Your task to perform on an android device: Open wifi settings Image 0: 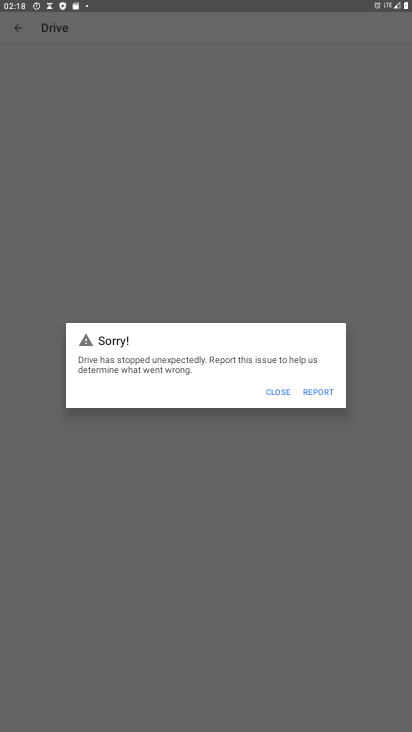
Step 0: drag from (216, 706) to (255, 80)
Your task to perform on an android device: Open wifi settings Image 1: 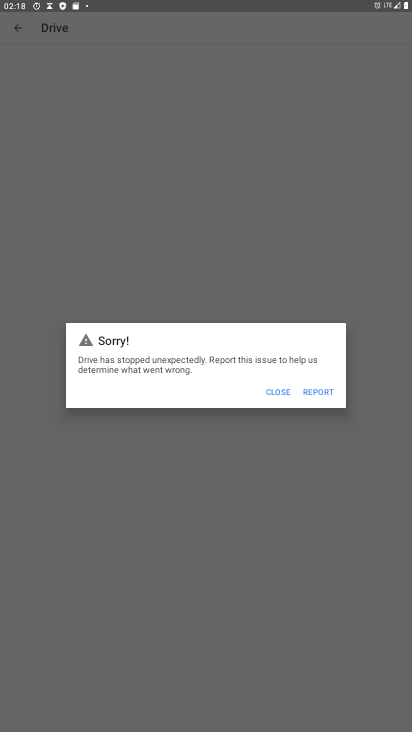
Step 1: press home button
Your task to perform on an android device: Open wifi settings Image 2: 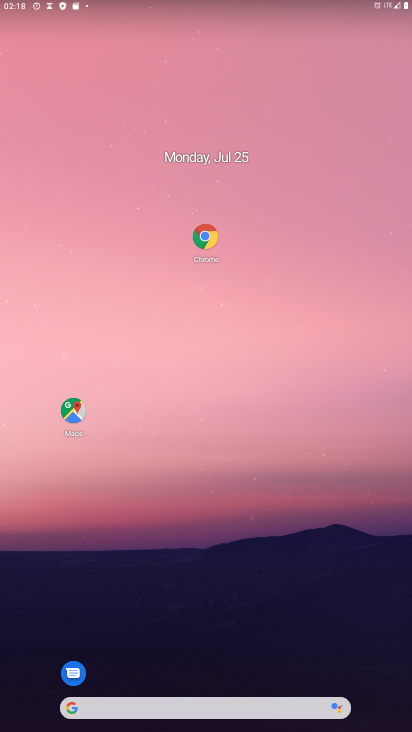
Step 2: drag from (219, 508) to (222, 45)
Your task to perform on an android device: Open wifi settings Image 3: 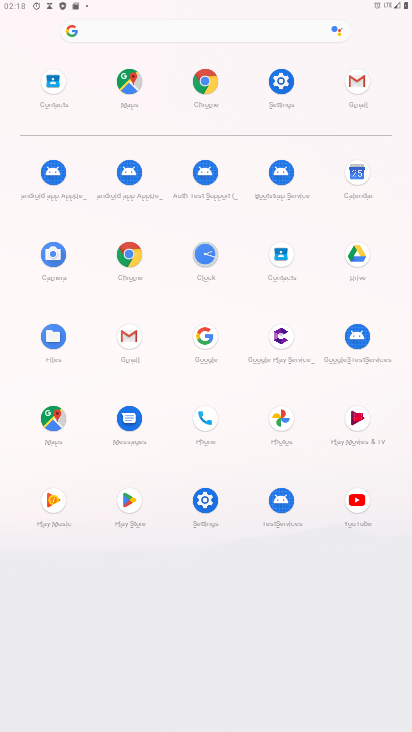
Step 3: click (282, 86)
Your task to perform on an android device: Open wifi settings Image 4: 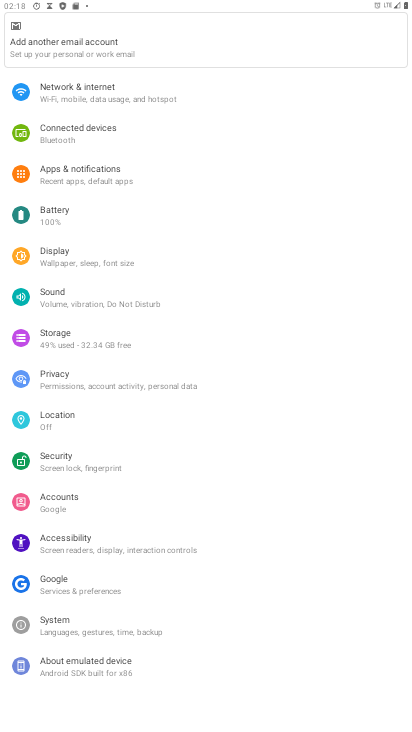
Step 4: click (115, 89)
Your task to perform on an android device: Open wifi settings Image 5: 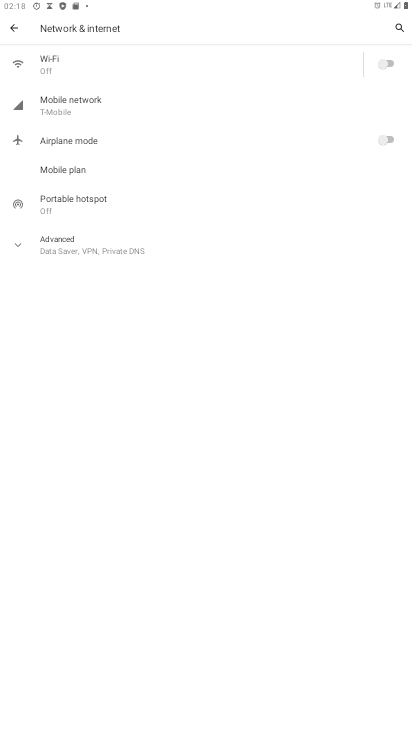
Step 5: click (67, 73)
Your task to perform on an android device: Open wifi settings Image 6: 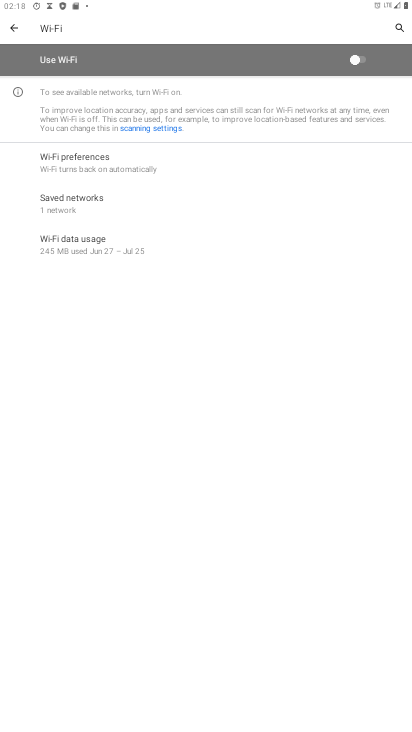
Step 6: task complete